Your task to perform on an android device: open sync settings in chrome Image 0: 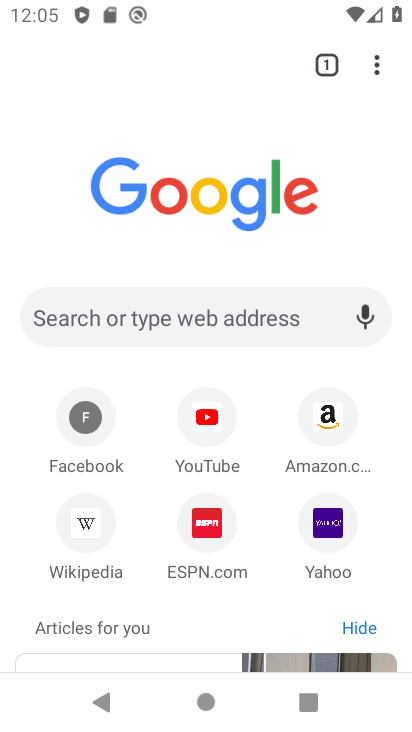
Step 0: click (377, 66)
Your task to perform on an android device: open sync settings in chrome Image 1: 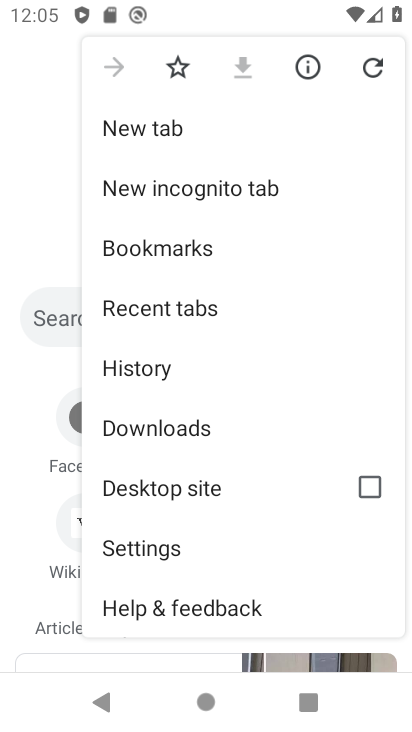
Step 1: click (201, 565)
Your task to perform on an android device: open sync settings in chrome Image 2: 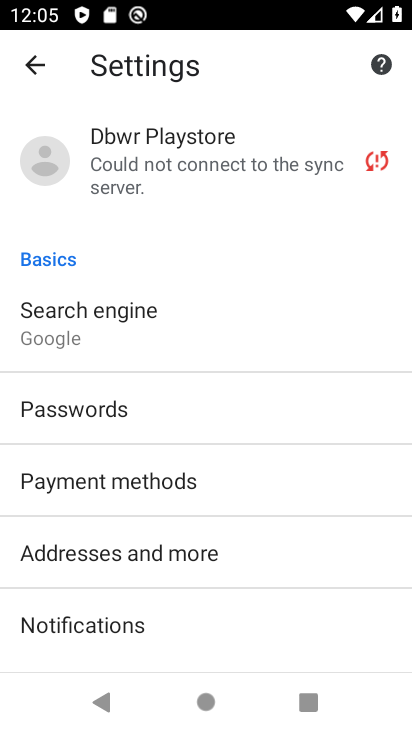
Step 2: click (198, 167)
Your task to perform on an android device: open sync settings in chrome Image 3: 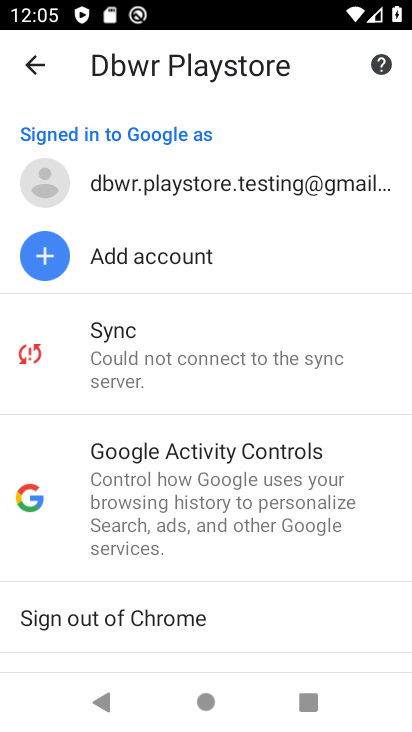
Step 3: task complete